Your task to perform on an android device: Go to calendar. Show me events next week Image 0: 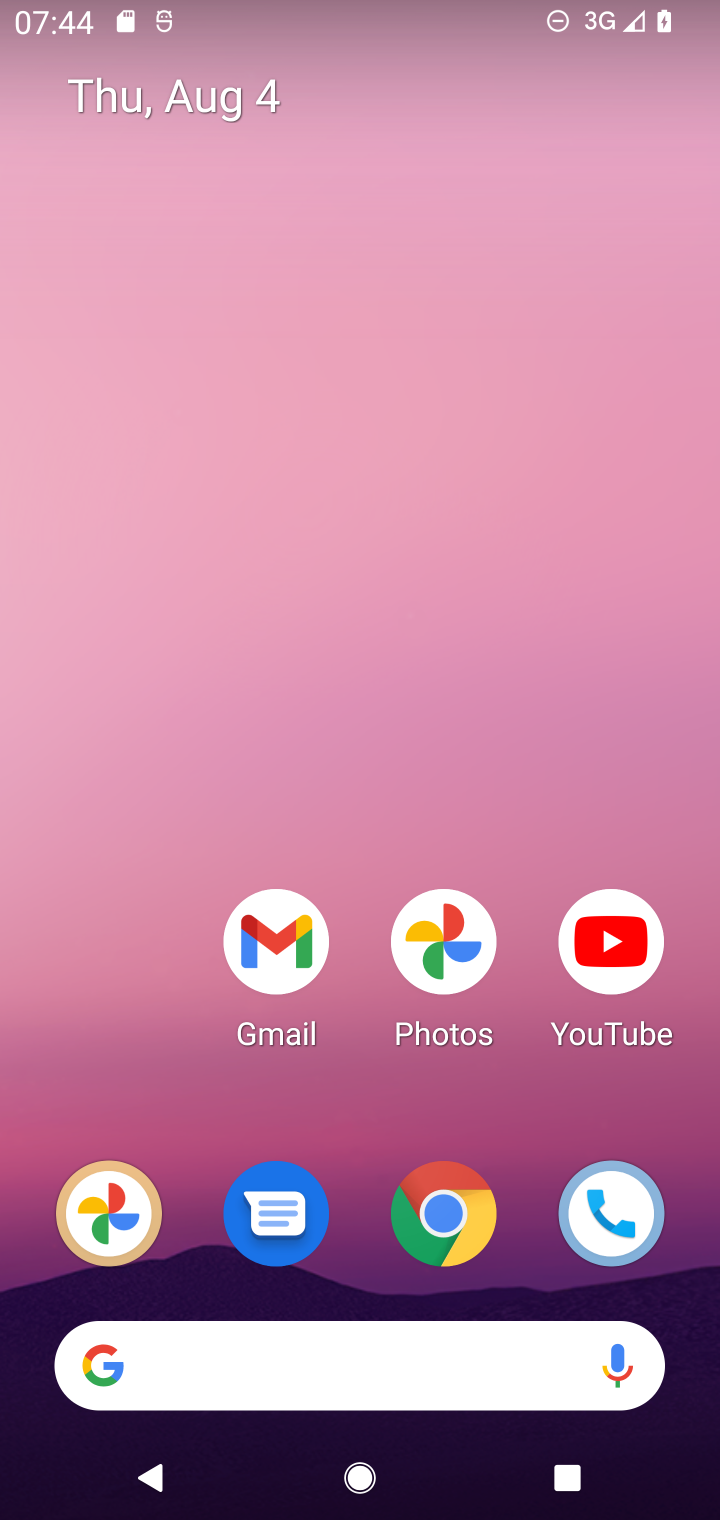
Step 0: press home button
Your task to perform on an android device: Go to calendar. Show me events next week Image 1: 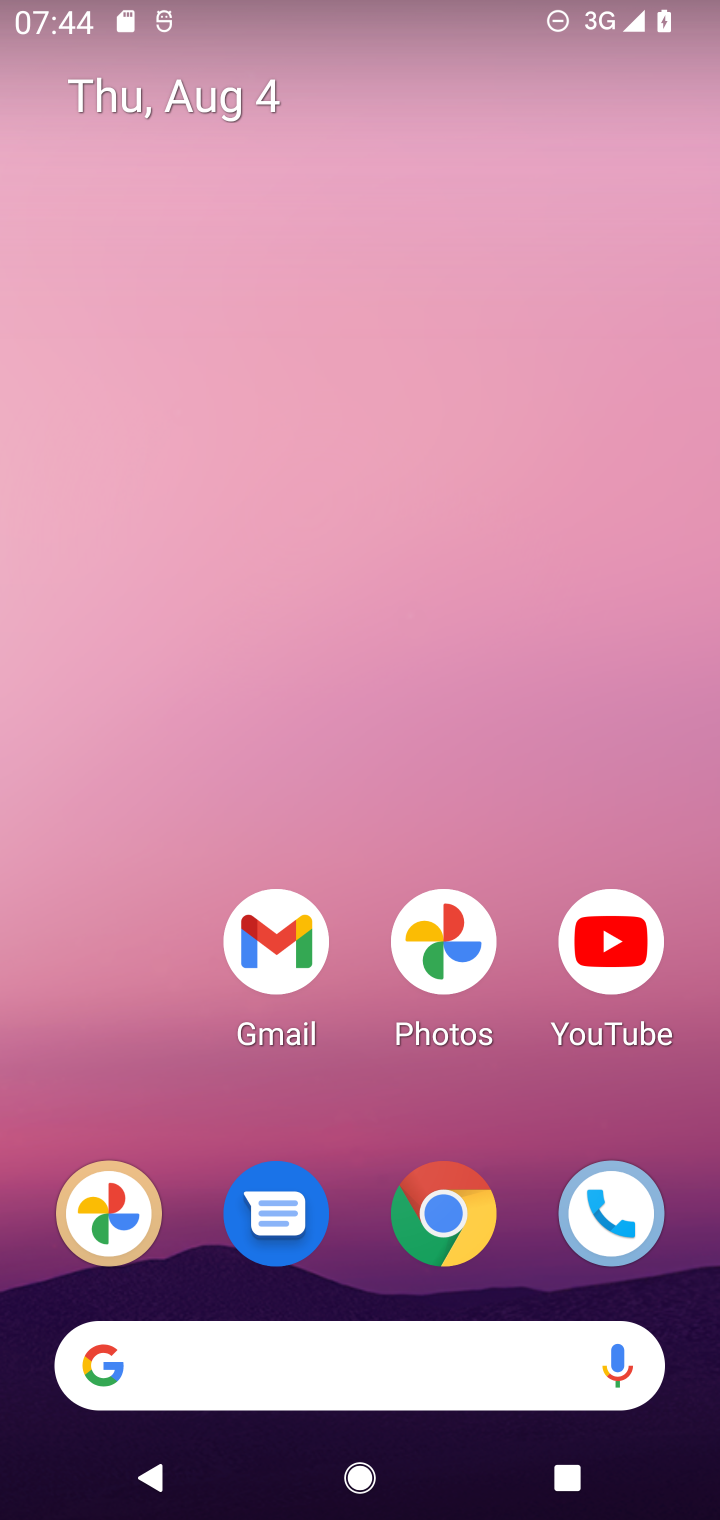
Step 1: drag from (166, 1092) to (189, 336)
Your task to perform on an android device: Go to calendar. Show me events next week Image 2: 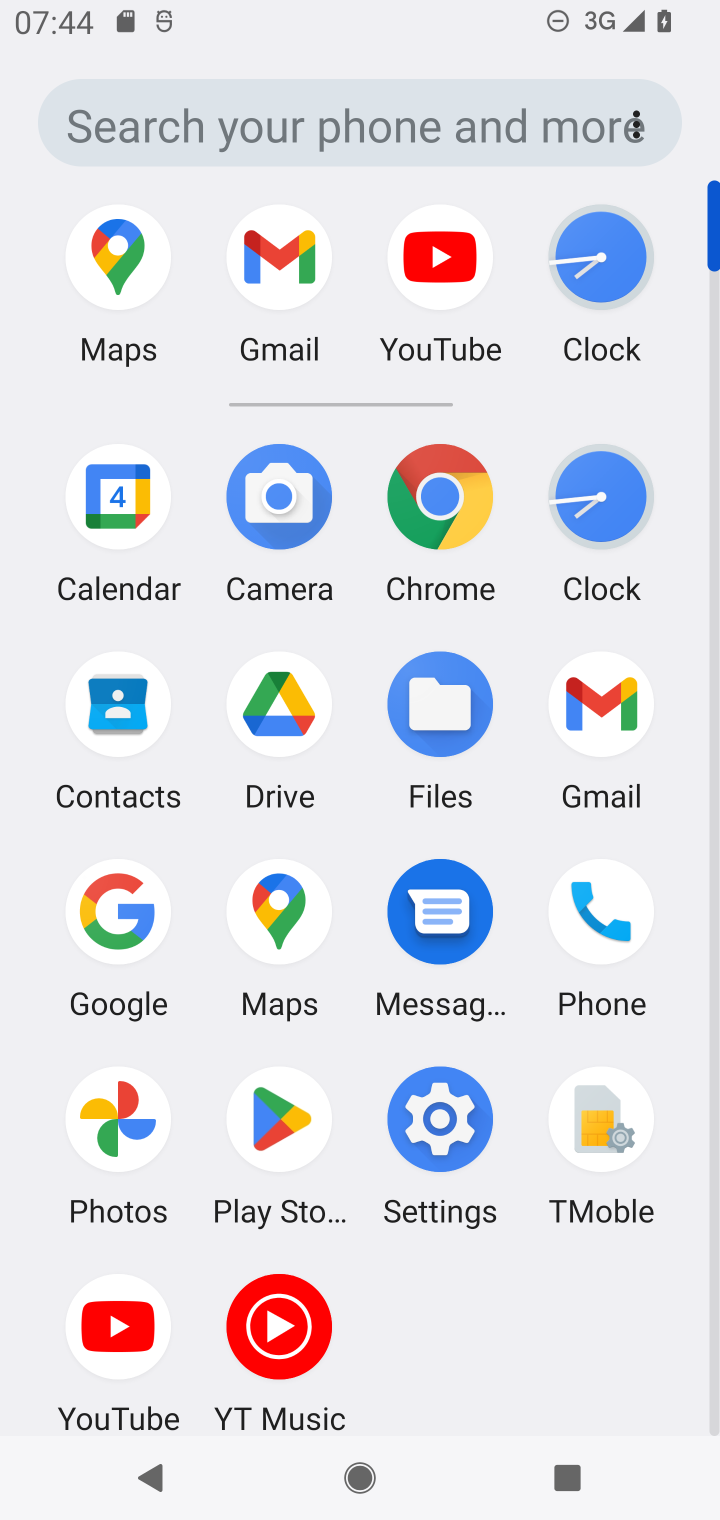
Step 2: click (111, 509)
Your task to perform on an android device: Go to calendar. Show me events next week Image 3: 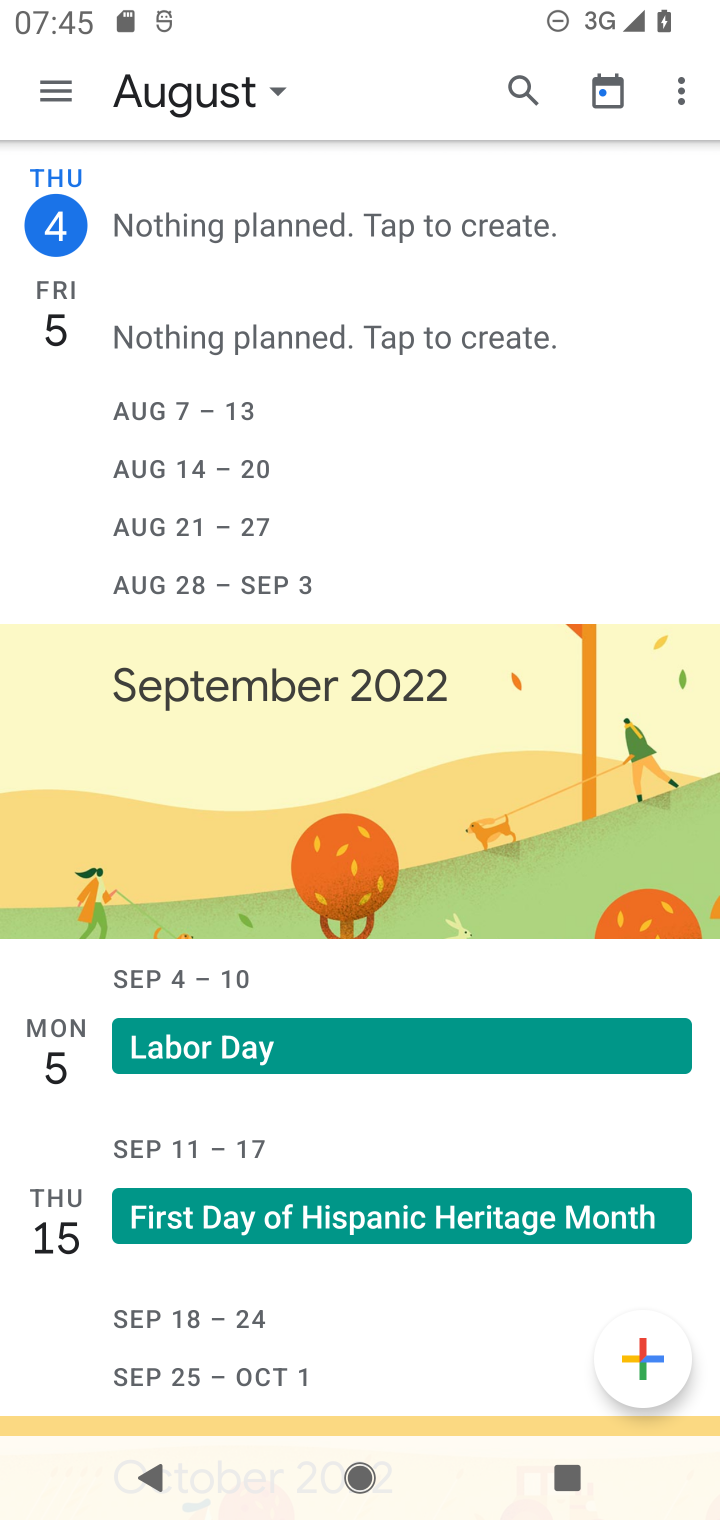
Step 3: click (272, 89)
Your task to perform on an android device: Go to calendar. Show me events next week Image 4: 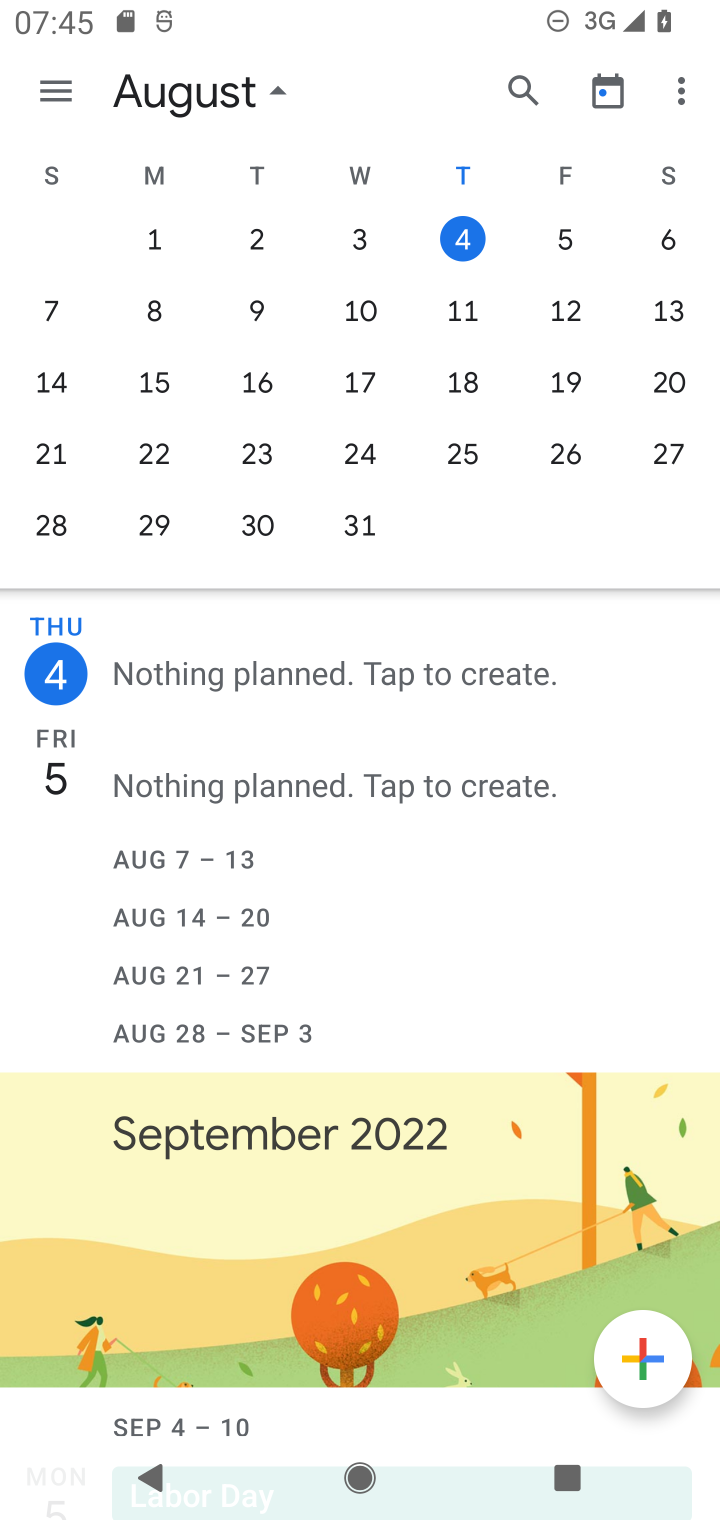
Step 4: click (157, 298)
Your task to perform on an android device: Go to calendar. Show me events next week Image 5: 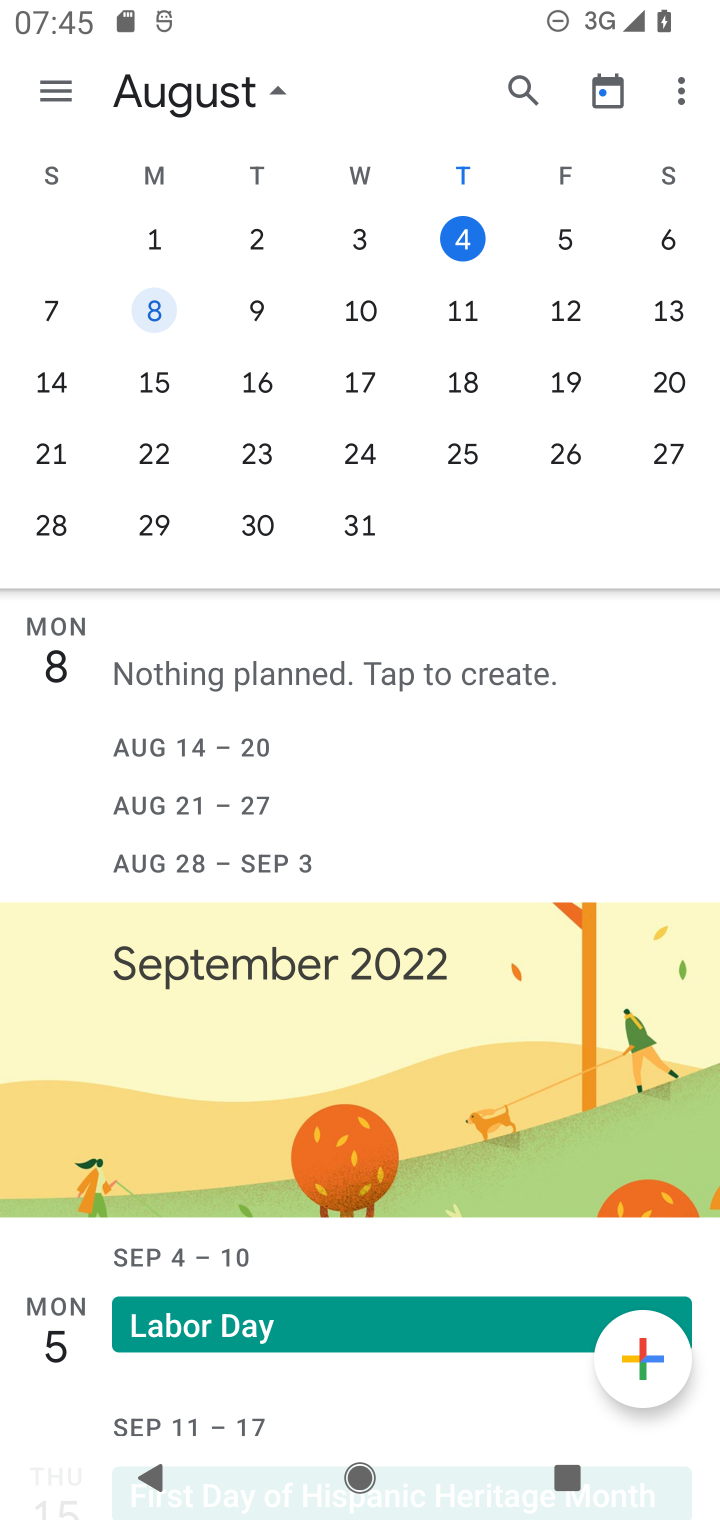
Step 5: task complete